Your task to perform on an android device: Show me recent news Image 0: 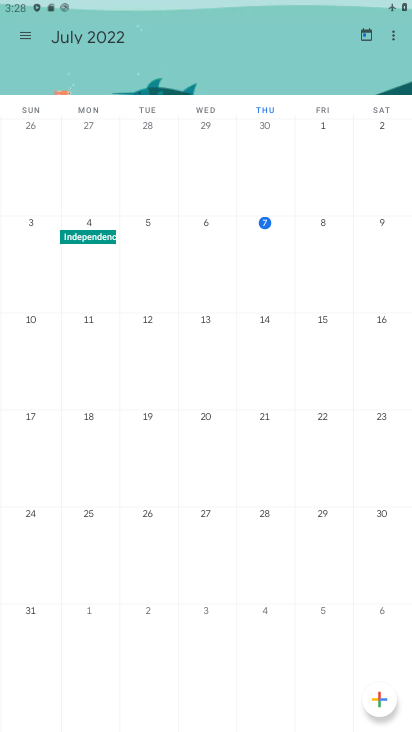
Step 0: press home button
Your task to perform on an android device: Show me recent news Image 1: 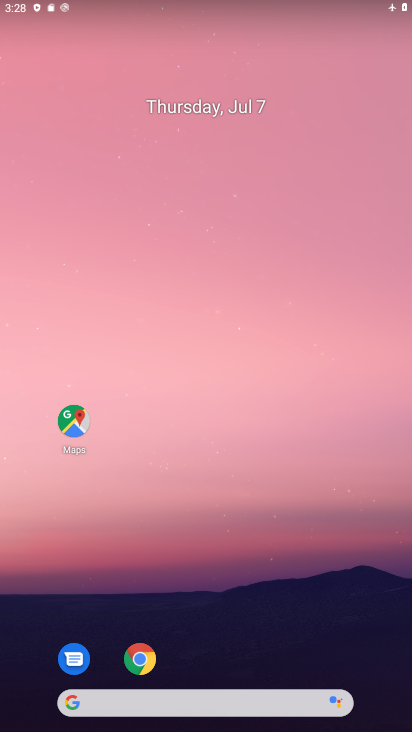
Step 1: drag from (220, 657) to (218, 0)
Your task to perform on an android device: Show me recent news Image 2: 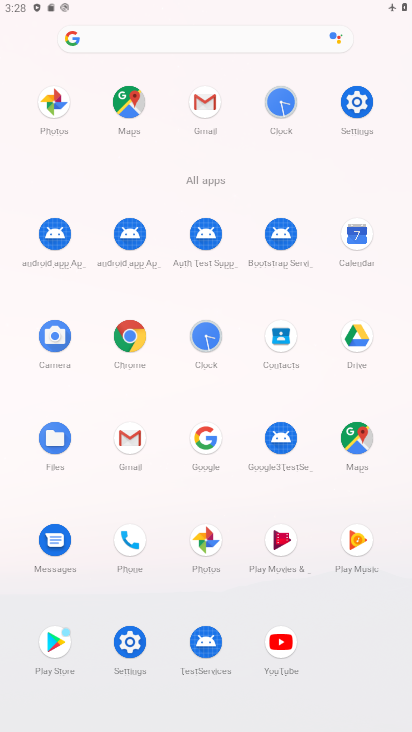
Step 2: click (219, 35)
Your task to perform on an android device: Show me recent news Image 3: 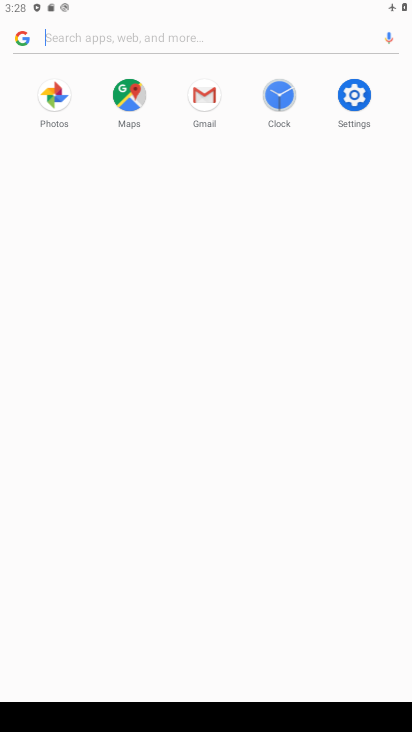
Step 3: type "recent news"
Your task to perform on an android device: Show me recent news Image 4: 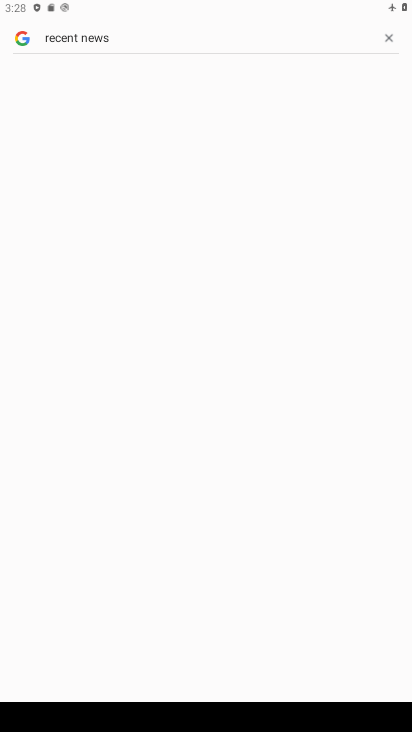
Step 4: click (139, 144)
Your task to perform on an android device: Show me recent news Image 5: 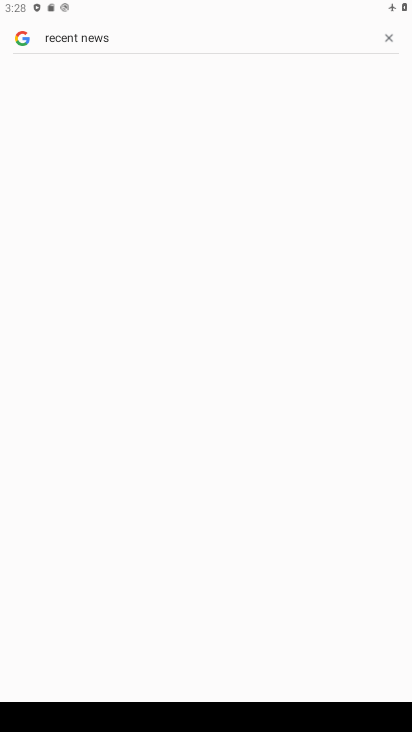
Step 5: task complete